Your task to perform on an android device: Search for vegetarian restaurants on Maps Image 0: 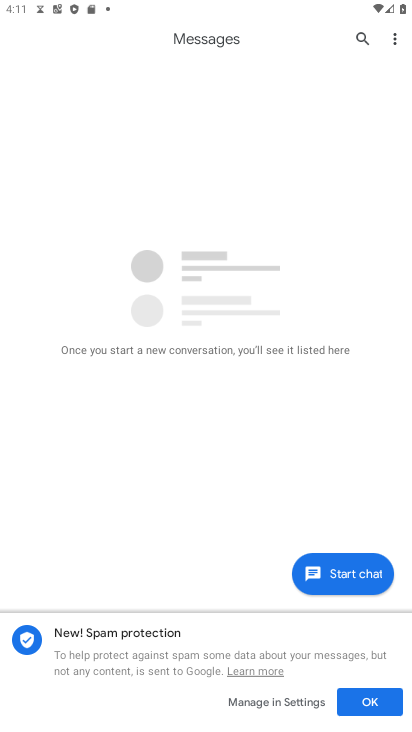
Step 0: press home button
Your task to perform on an android device: Search for vegetarian restaurants on Maps Image 1: 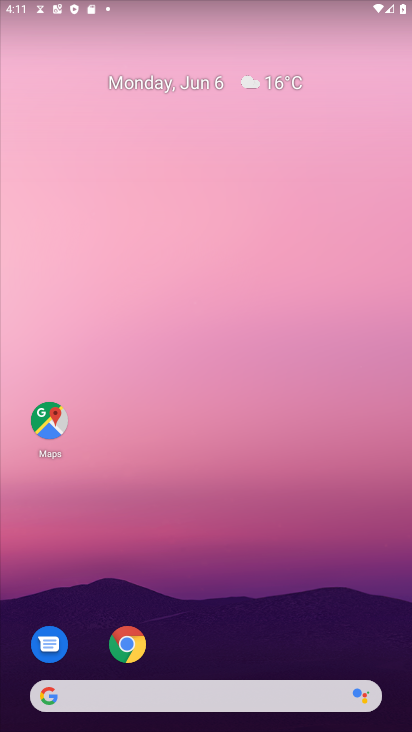
Step 1: click (55, 408)
Your task to perform on an android device: Search for vegetarian restaurants on Maps Image 2: 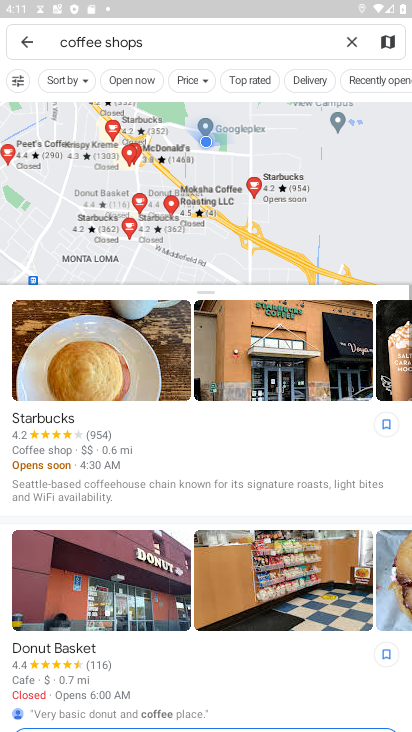
Step 2: click (347, 41)
Your task to perform on an android device: Search for vegetarian restaurants on Maps Image 3: 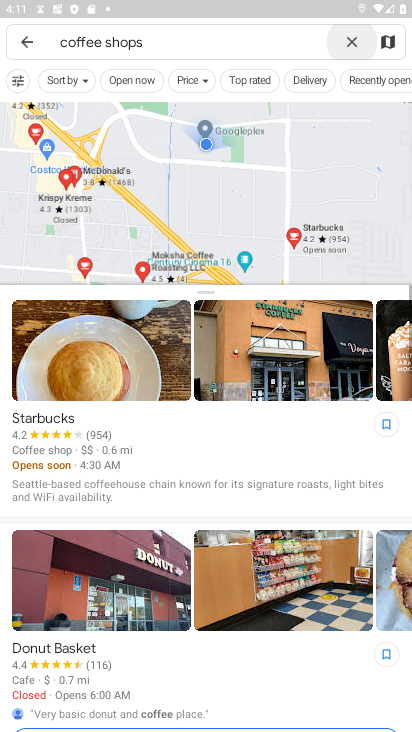
Step 3: click (149, 46)
Your task to perform on an android device: Search for vegetarian restaurants on Maps Image 4: 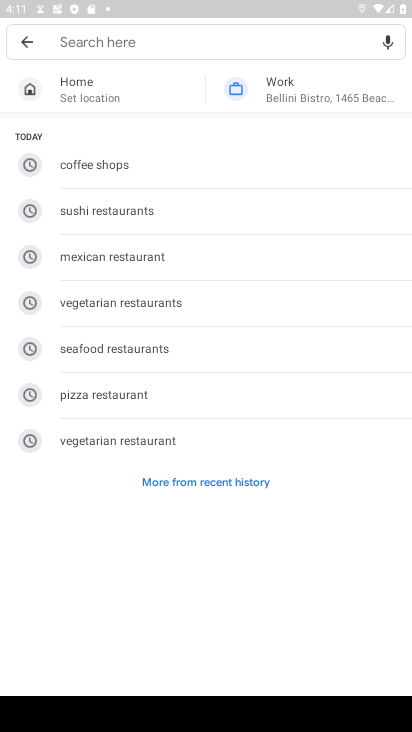
Step 4: click (97, 444)
Your task to perform on an android device: Search for vegetarian restaurants on Maps Image 5: 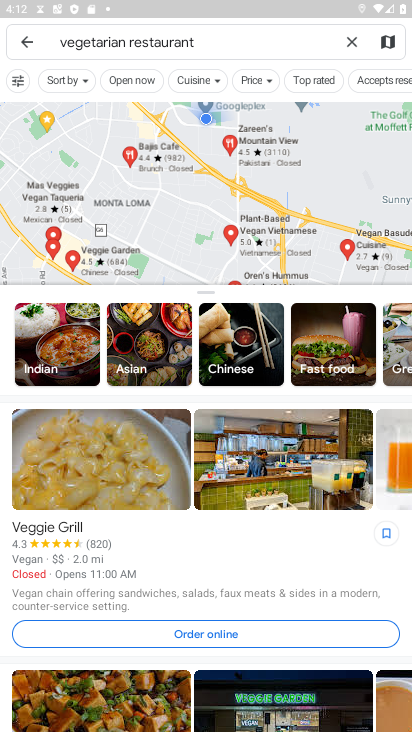
Step 5: task complete